Your task to perform on an android device: Open the calendar and show me this week's events? Image 0: 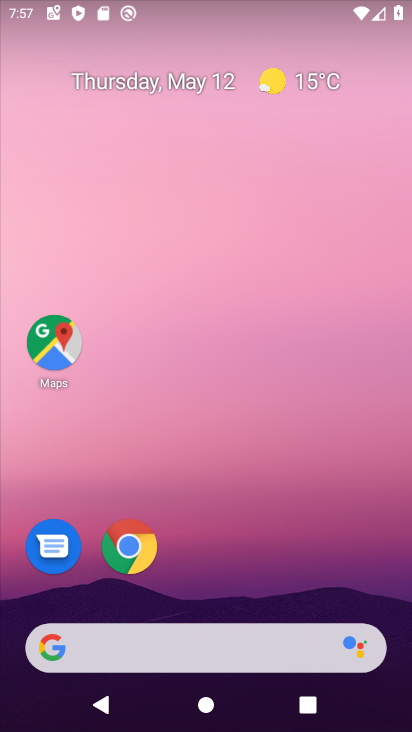
Step 0: drag from (155, 645) to (308, 143)
Your task to perform on an android device: Open the calendar and show me this week's events? Image 1: 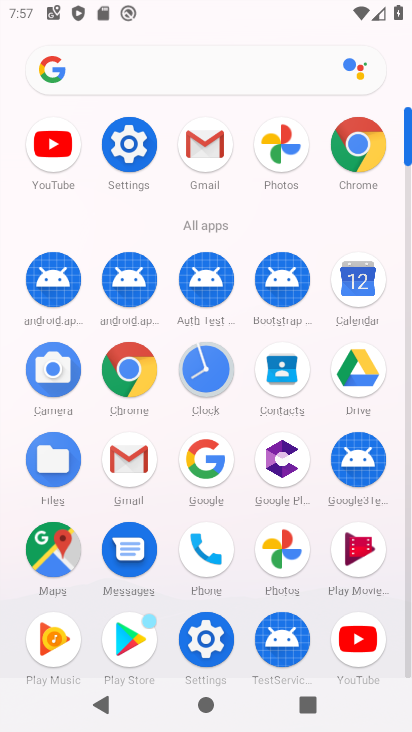
Step 1: click (366, 290)
Your task to perform on an android device: Open the calendar and show me this week's events? Image 2: 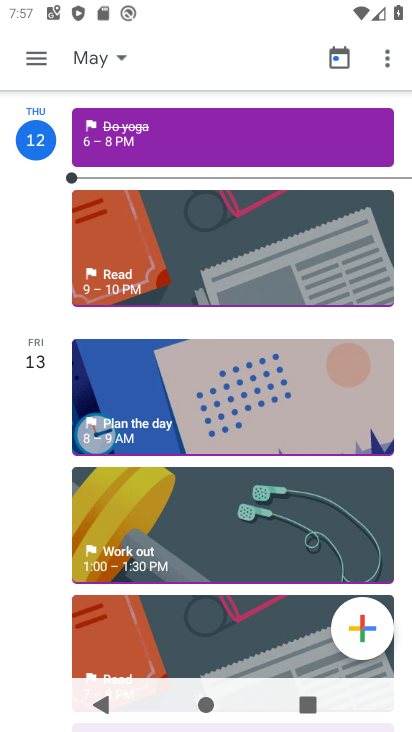
Step 2: click (95, 57)
Your task to perform on an android device: Open the calendar and show me this week's events? Image 3: 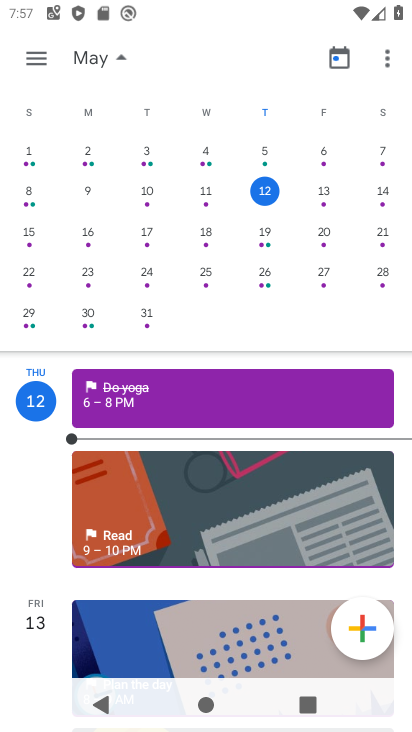
Step 3: click (35, 238)
Your task to perform on an android device: Open the calendar and show me this week's events? Image 4: 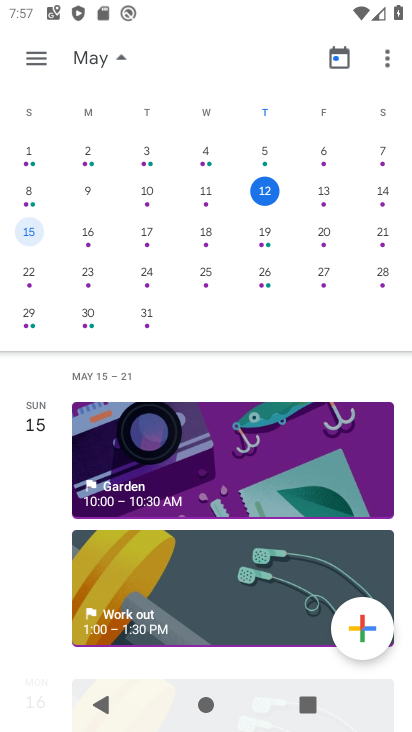
Step 4: click (44, 61)
Your task to perform on an android device: Open the calendar and show me this week's events? Image 5: 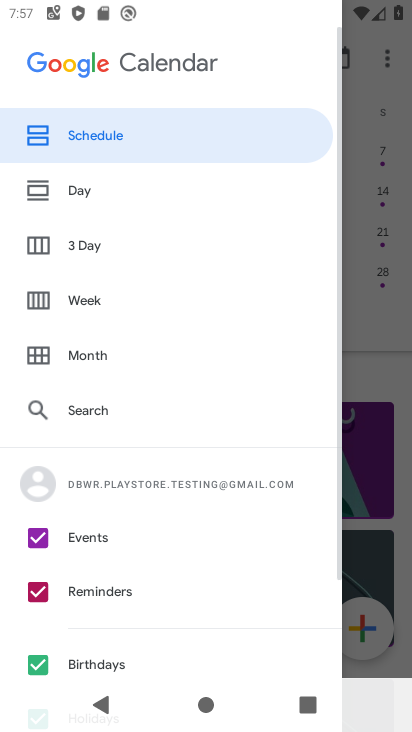
Step 5: click (110, 305)
Your task to perform on an android device: Open the calendar and show me this week's events? Image 6: 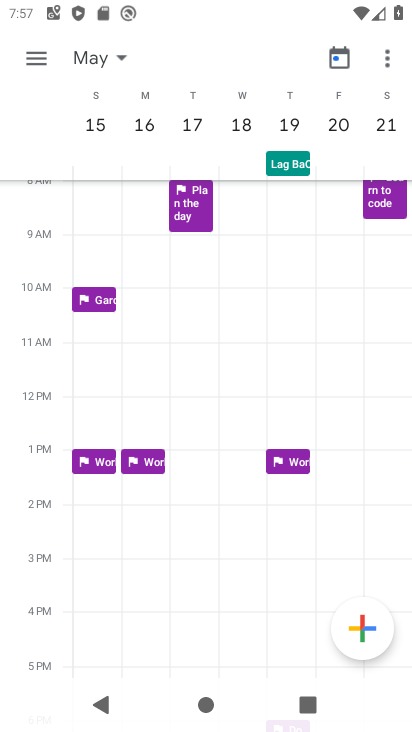
Step 6: click (33, 60)
Your task to perform on an android device: Open the calendar and show me this week's events? Image 7: 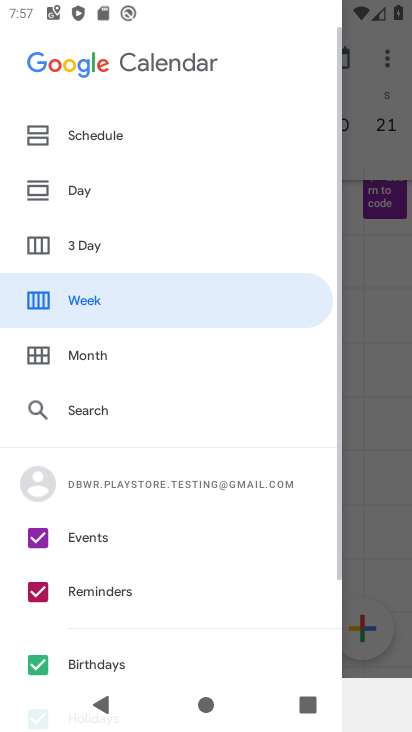
Step 7: click (88, 130)
Your task to perform on an android device: Open the calendar and show me this week's events? Image 8: 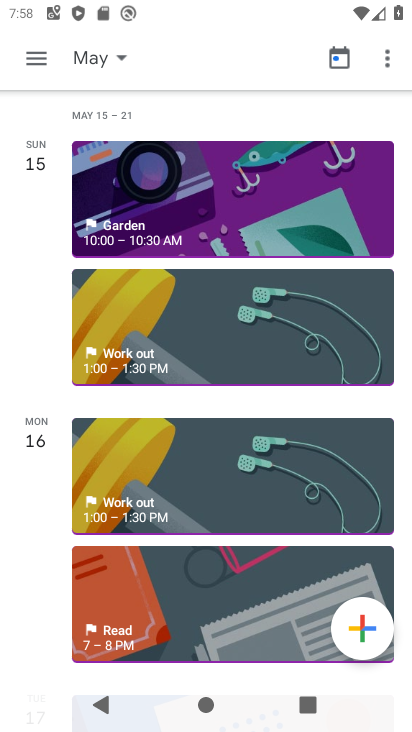
Step 8: click (229, 241)
Your task to perform on an android device: Open the calendar and show me this week's events? Image 9: 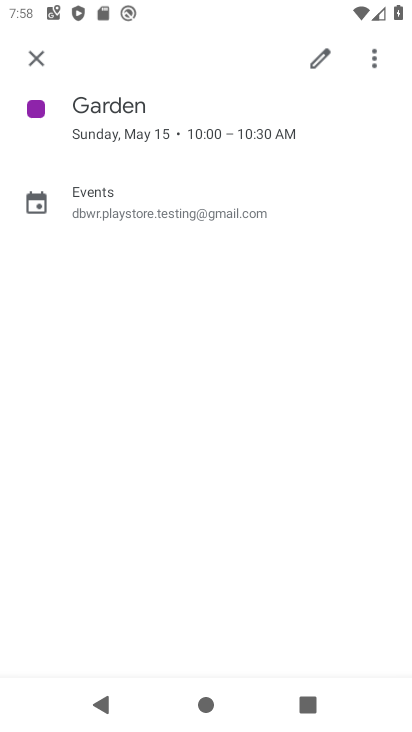
Step 9: task complete